Your task to perform on an android device: Open the calendar app, open the side menu, and click the "Day" option Image 0: 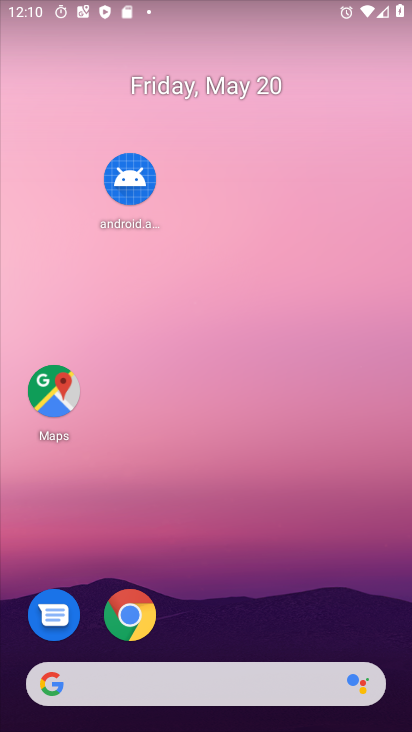
Step 0: drag from (352, 570) to (326, 278)
Your task to perform on an android device: Open the calendar app, open the side menu, and click the "Day" option Image 1: 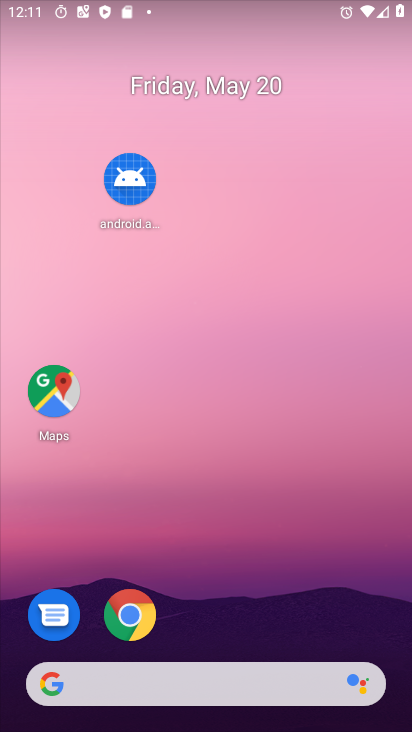
Step 1: drag from (308, 603) to (261, 49)
Your task to perform on an android device: Open the calendar app, open the side menu, and click the "Day" option Image 2: 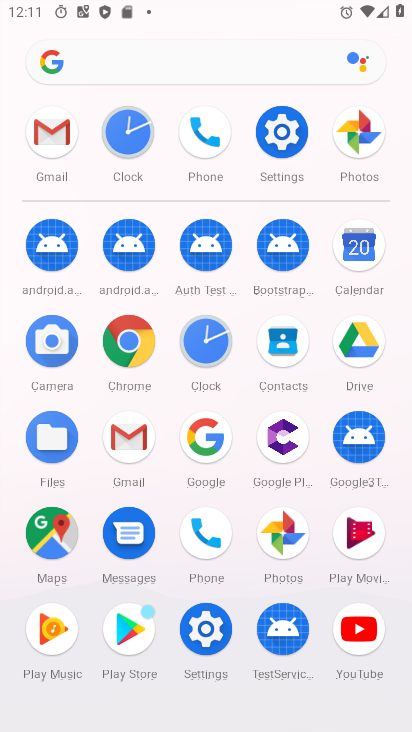
Step 2: click (354, 256)
Your task to perform on an android device: Open the calendar app, open the side menu, and click the "Day" option Image 3: 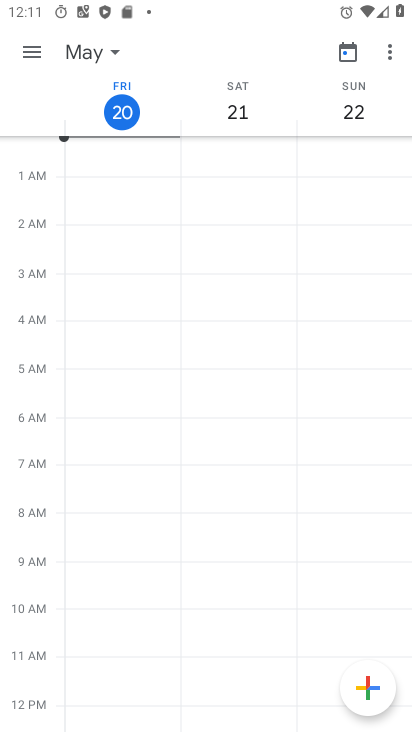
Step 3: click (37, 42)
Your task to perform on an android device: Open the calendar app, open the side menu, and click the "Day" option Image 4: 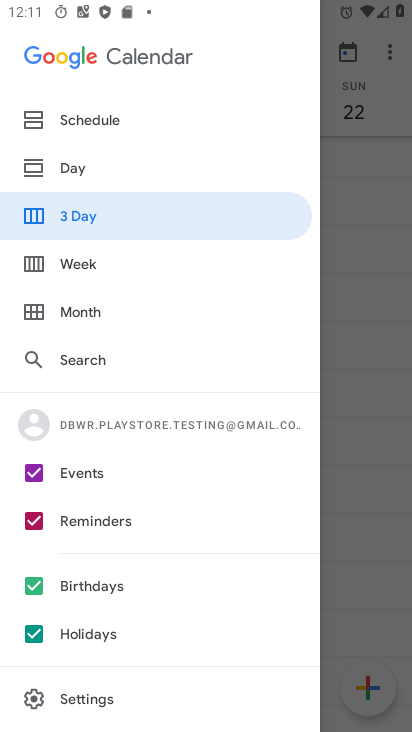
Step 4: click (103, 172)
Your task to perform on an android device: Open the calendar app, open the side menu, and click the "Day" option Image 5: 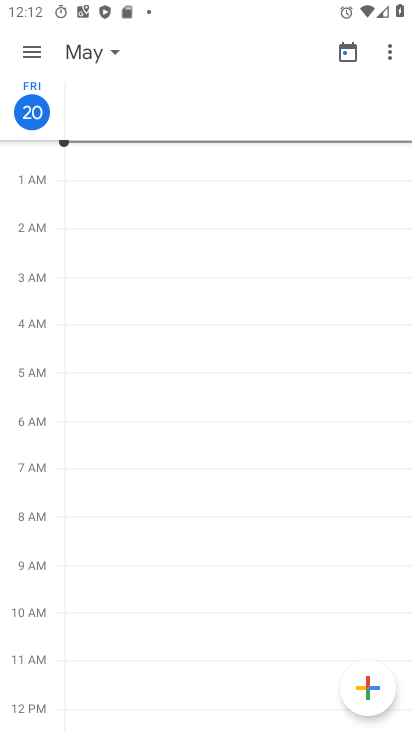
Step 5: task complete